Your task to perform on an android device: turn smart compose on in the gmail app Image 0: 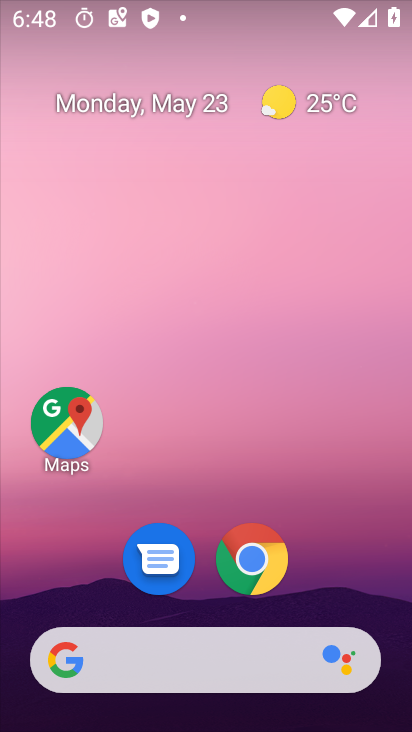
Step 0: drag from (395, 640) to (311, 16)
Your task to perform on an android device: turn smart compose on in the gmail app Image 1: 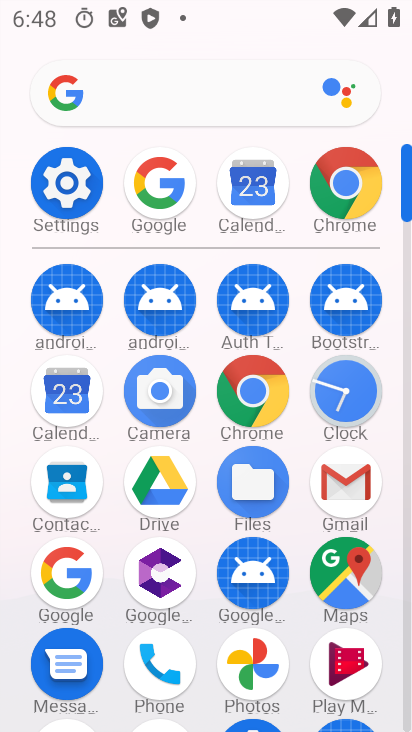
Step 1: click (348, 465)
Your task to perform on an android device: turn smart compose on in the gmail app Image 2: 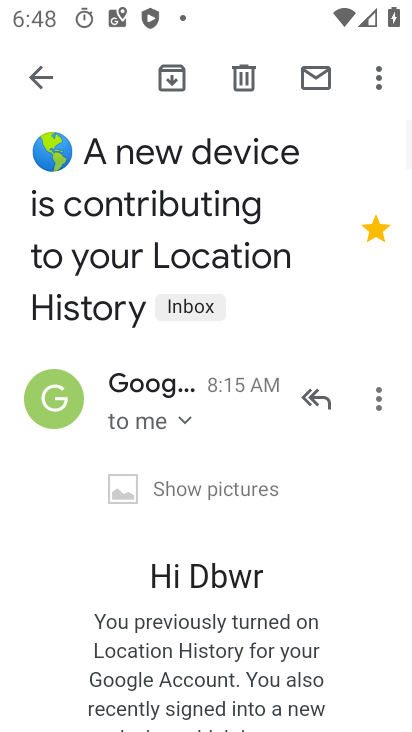
Step 2: press back button
Your task to perform on an android device: turn smart compose on in the gmail app Image 3: 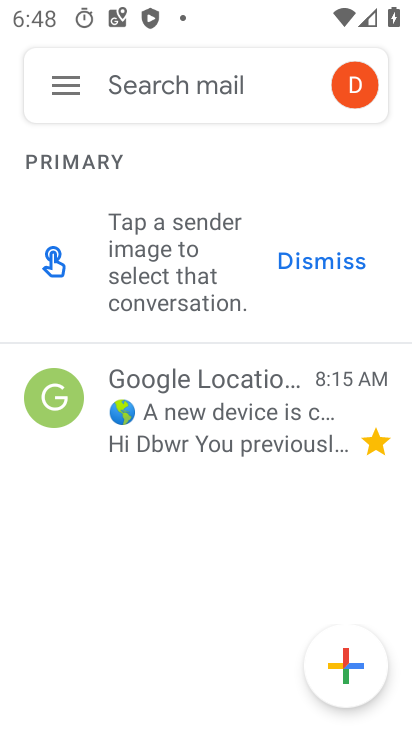
Step 3: click (75, 78)
Your task to perform on an android device: turn smart compose on in the gmail app Image 4: 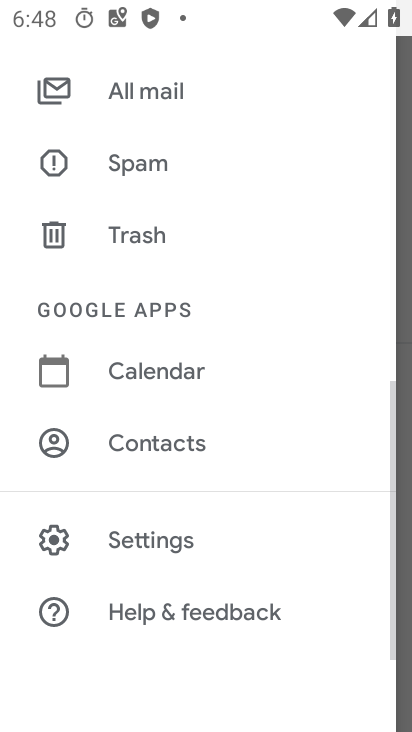
Step 4: click (178, 541)
Your task to perform on an android device: turn smart compose on in the gmail app Image 5: 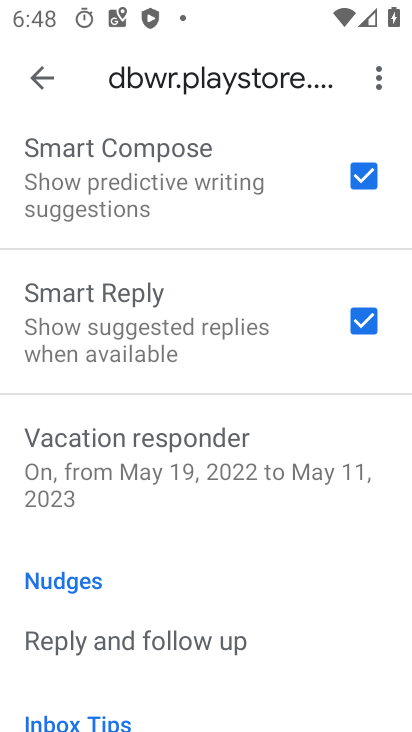
Step 5: task complete